Your task to perform on an android device: Open notification settings Image 0: 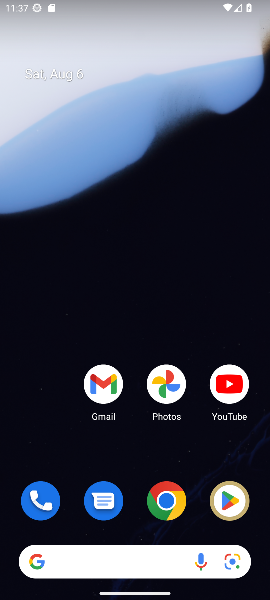
Step 0: drag from (209, 14) to (183, 23)
Your task to perform on an android device: Open notification settings Image 1: 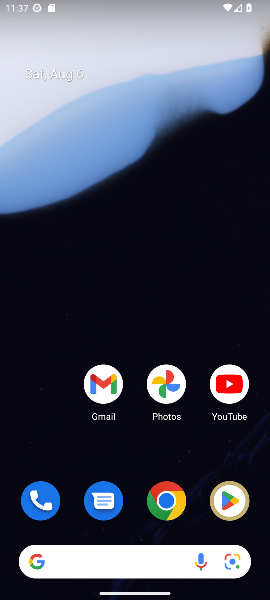
Step 1: drag from (109, 296) to (165, 3)
Your task to perform on an android device: Open notification settings Image 2: 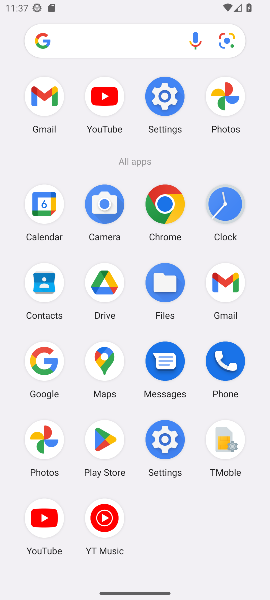
Step 2: click (162, 438)
Your task to perform on an android device: Open notification settings Image 3: 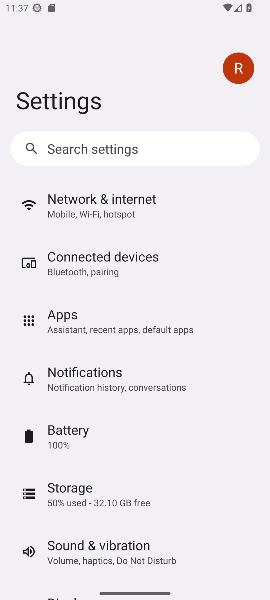
Step 3: click (65, 372)
Your task to perform on an android device: Open notification settings Image 4: 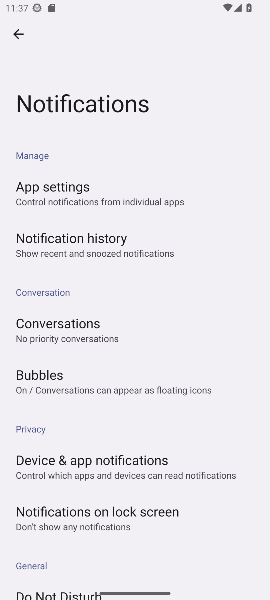
Step 4: task complete